Your task to perform on an android device: set default search engine in the chrome app Image 0: 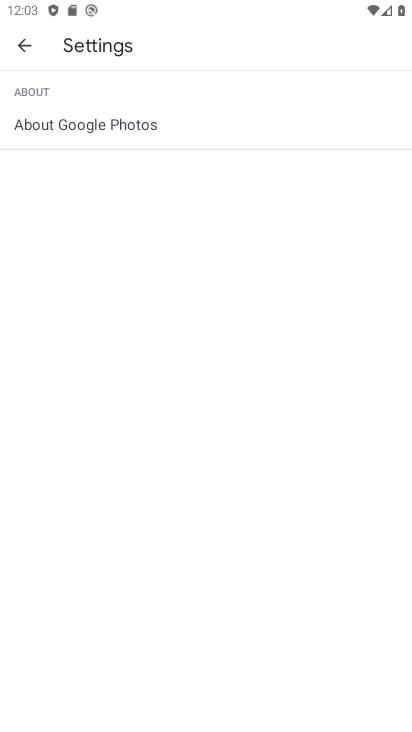
Step 0: press home button
Your task to perform on an android device: set default search engine in the chrome app Image 1: 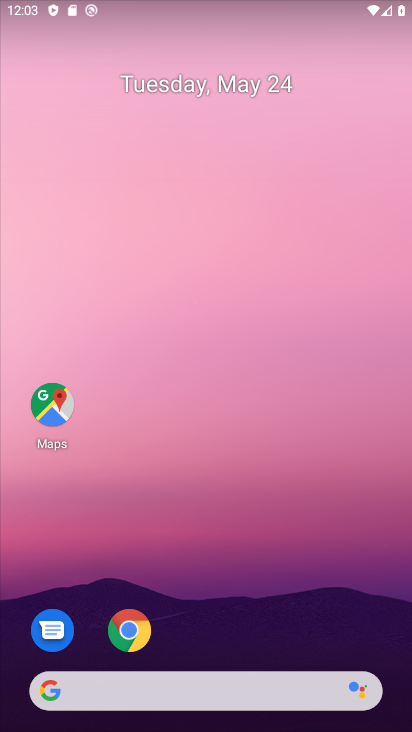
Step 1: click (141, 620)
Your task to perform on an android device: set default search engine in the chrome app Image 2: 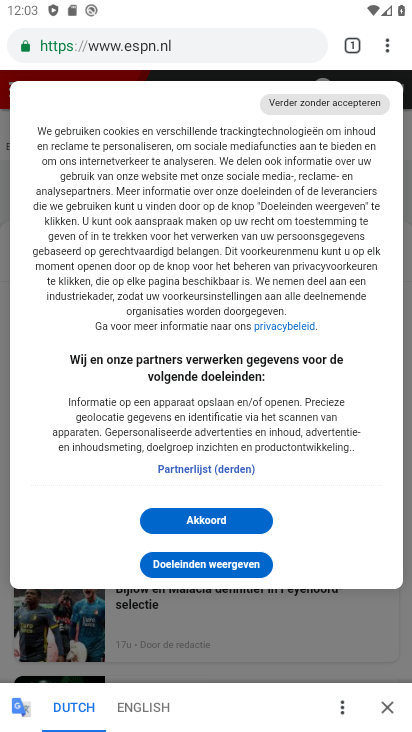
Step 2: click (384, 32)
Your task to perform on an android device: set default search engine in the chrome app Image 3: 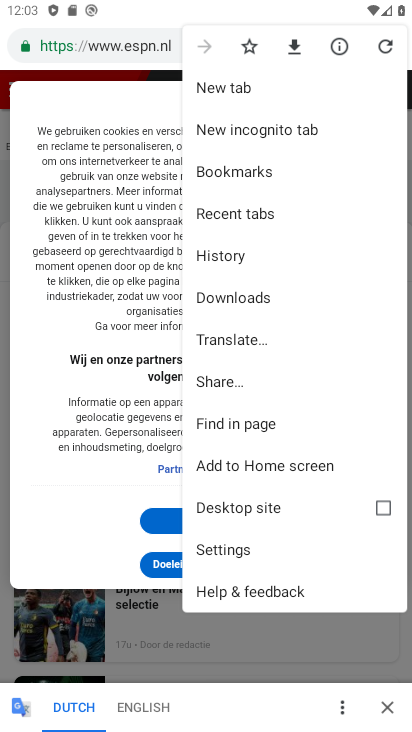
Step 3: click (269, 540)
Your task to perform on an android device: set default search engine in the chrome app Image 4: 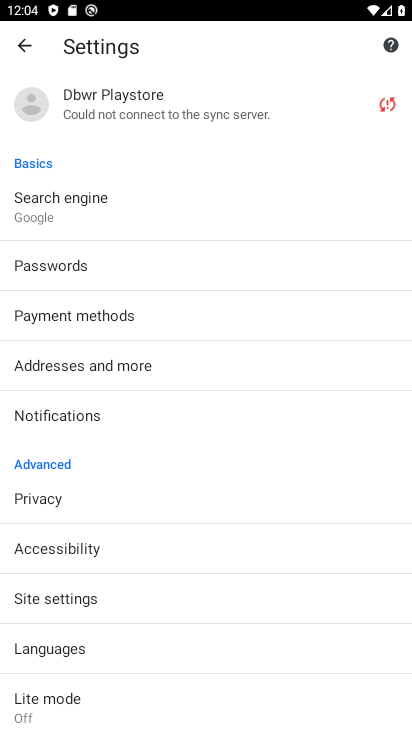
Step 4: click (102, 207)
Your task to perform on an android device: set default search engine in the chrome app Image 5: 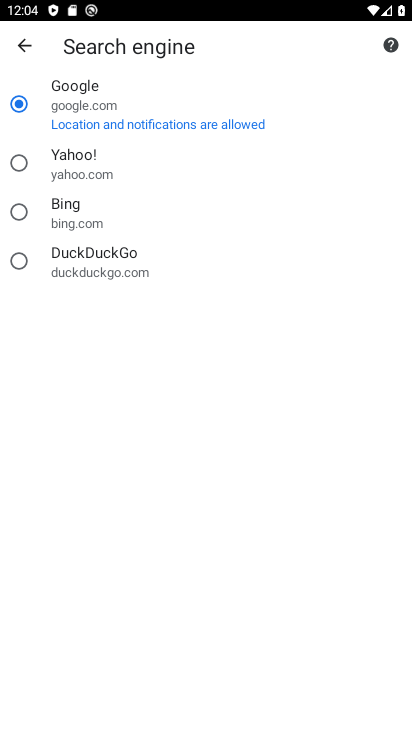
Step 5: click (116, 261)
Your task to perform on an android device: set default search engine in the chrome app Image 6: 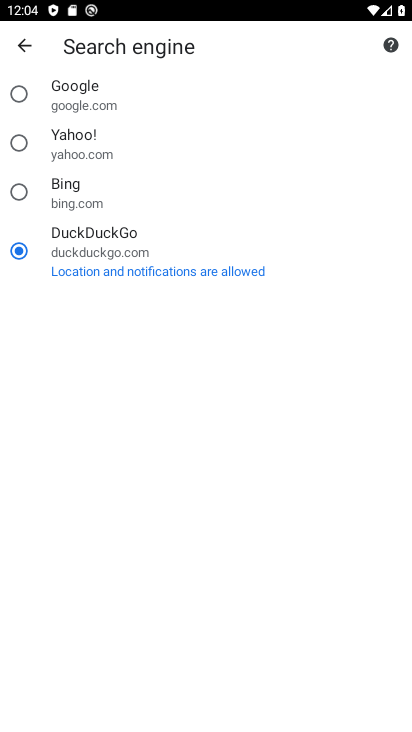
Step 6: task complete